Your task to perform on an android device: turn on bluetooth scan Image 0: 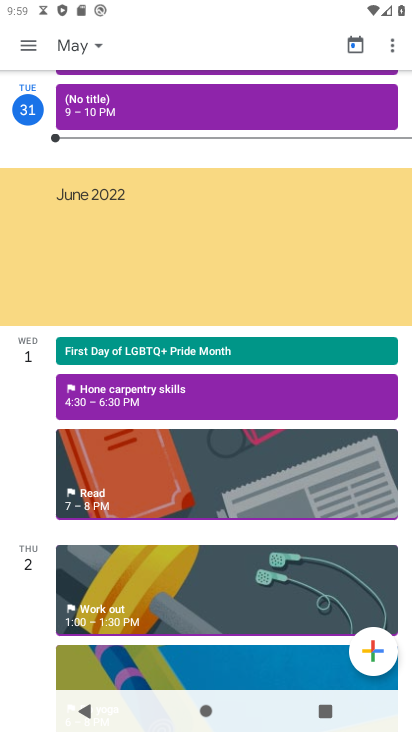
Step 0: press back button
Your task to perform on an android device: turn on bluetooth scan Image 1: 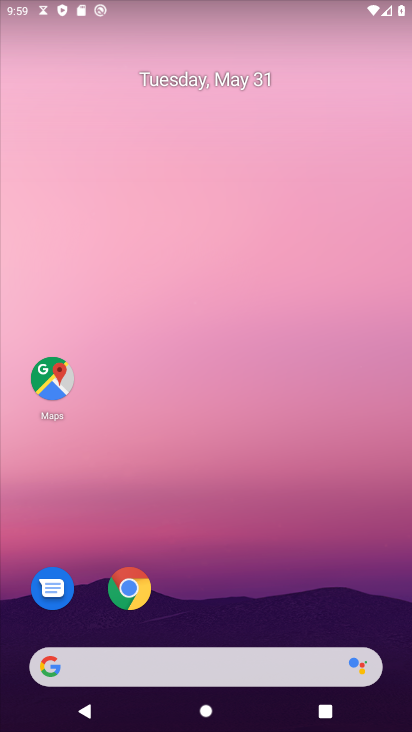
Step 1: drag from (244, 543) to (177, 55)
Your task to perform on an android device: turn on bluetooth scan Image 2: 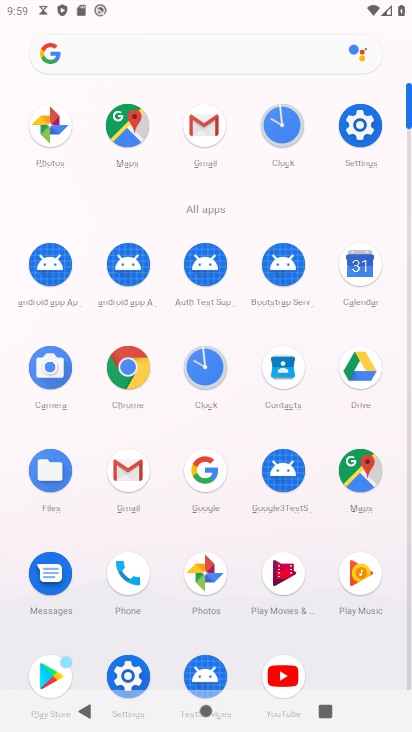
Step 2: click (357, 122)
Your task to perform on an android device: turn on bluetooth scan Image 3: 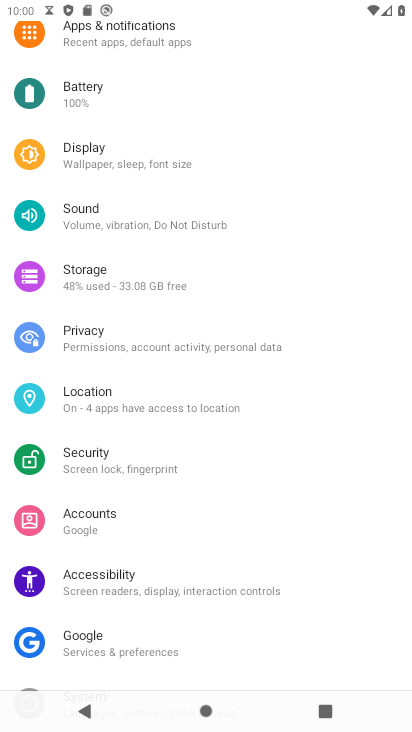
Step 3: click (143, 405)
Your task to perform on an android device: turn on bluetooth scan Image 4: 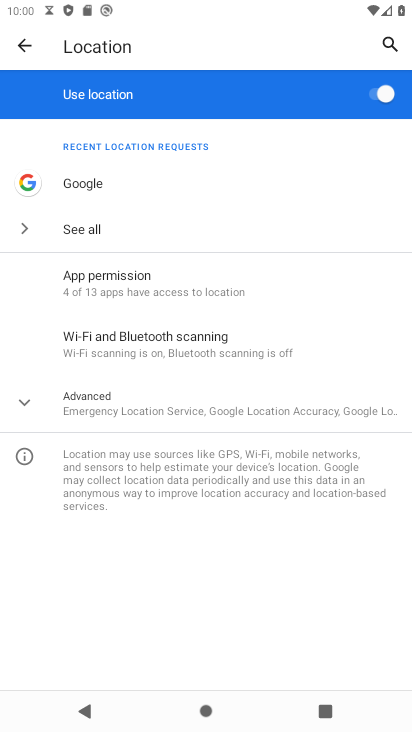
Step 4: click (181, 350)
Your task to perform on an android device: turn on bluetooth scan Image 5: 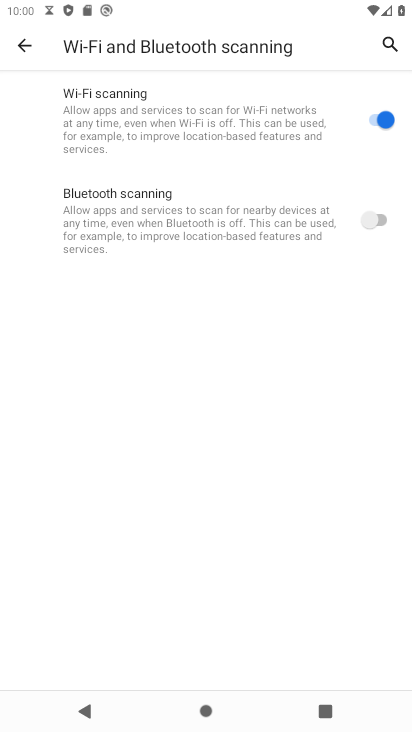
Step 5: click (363, 211)
Your task to perform on an android device: turn on bluetooth scan Image 6: 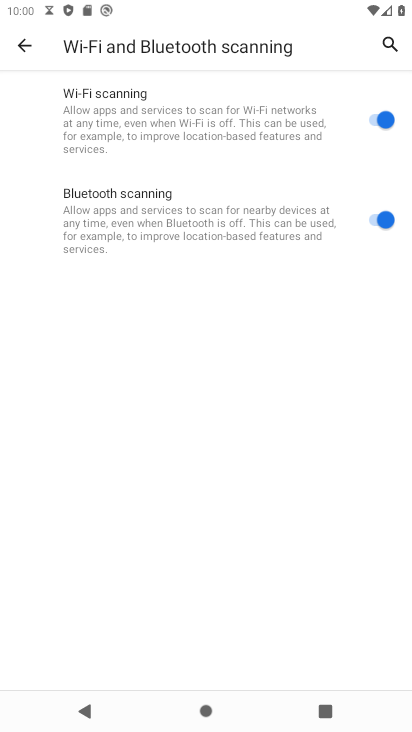
Step 6: task complete